Your task to perform on an android device: Open the phone app and click the voicemail tab. Image 0: 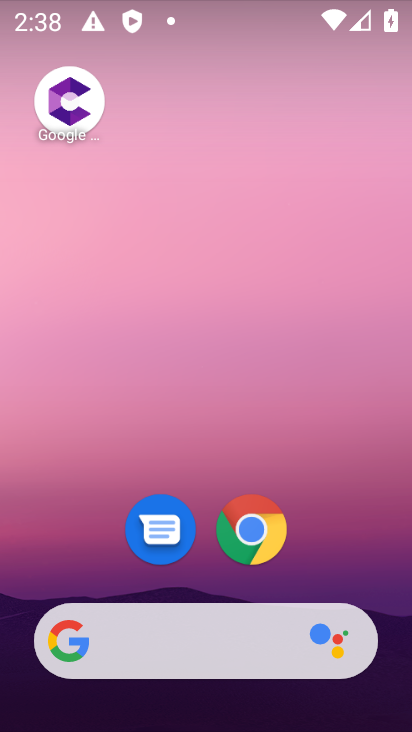
Step 0: press home button
Your task to perform on an android device: Open the phone app and click the voicemail tab. Image 1: 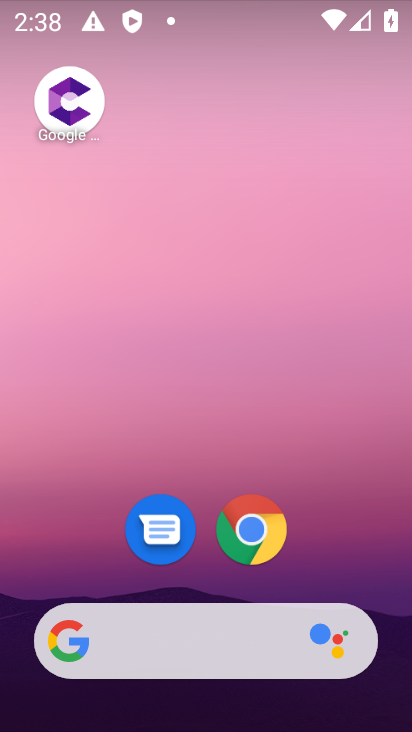
Step 1: drag from (226, 519) to (186, 205)
Your task to perform on an android device: Open the phone app and click the voicemail tab. Image 2: 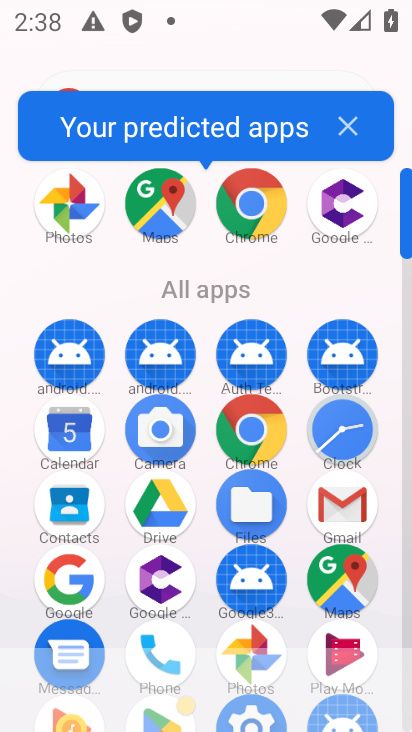
Step 2: click (352, 124)
Your task to perform on an android device: Open the phone app and click the voicemail tab. Image 3: 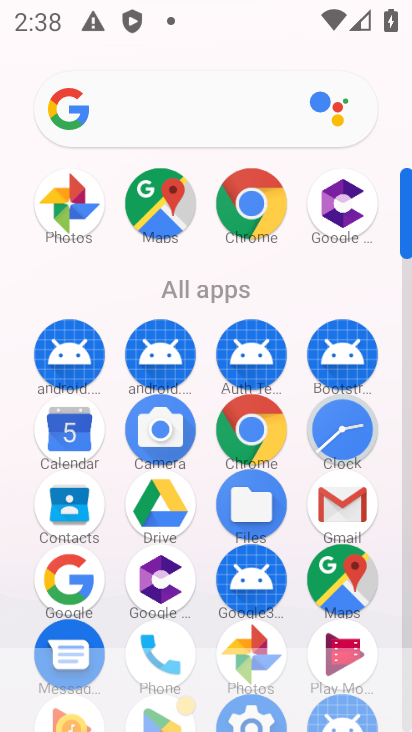
Step 3: drag from (214, 540) to (184, 141)
Your task to perform on an android device: Open the phone app and click the voicemail tab. Image 4: 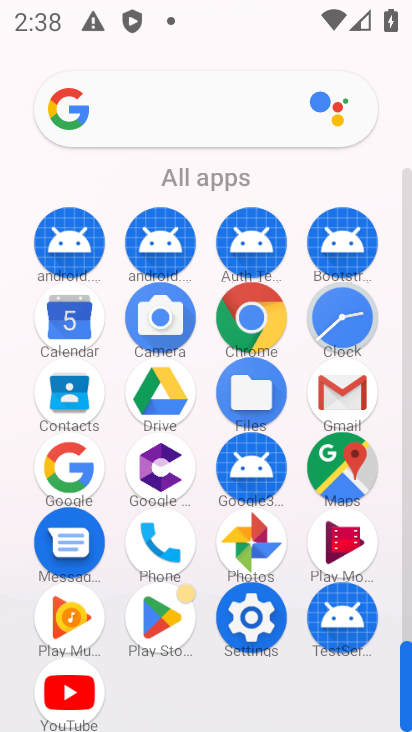
Step 4: click (157, 538)
Your task to perform on an android device: Open the phone app and click the voicemail tab. Image 5: 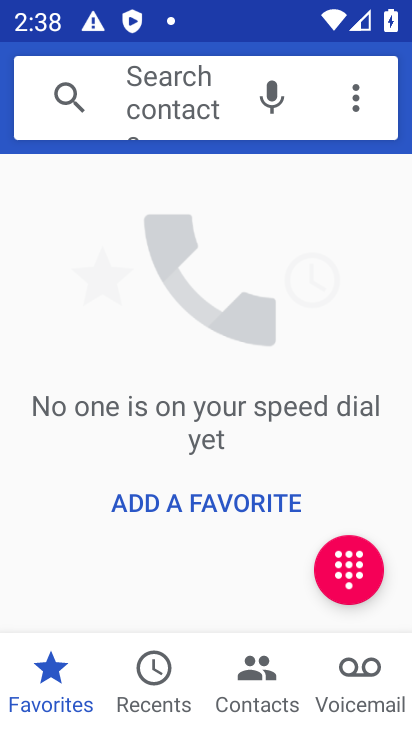
Step 5: click (372, 666)
Your task to perform on an android device: Open the phone app and click the voicemail tab. Image 6: 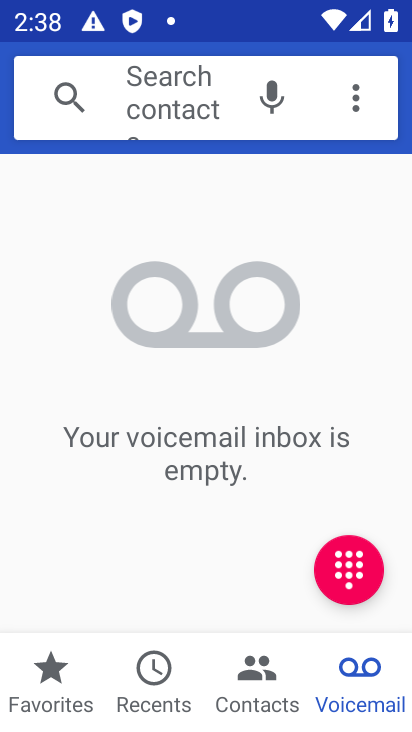
Step 6: task complete